Your task to perform on an android device: Clear the shopping cart on walmart.com. Search for razer blackwidow on walmart.com, select the first entry, add it to the cart, then select checkout. Image 0: 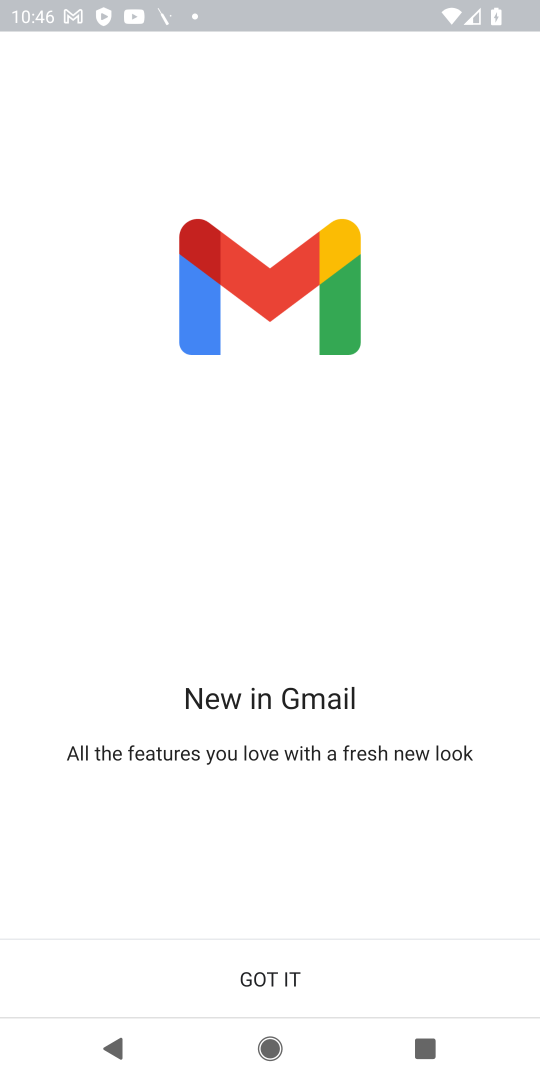
Step 0: press home button
Your task to perform on an android device: Clear the shopping cart on walmart.com. Search for razer blackwidow on walmart.com, select the first entry, add it to the cart, then select checkout. Image 1: 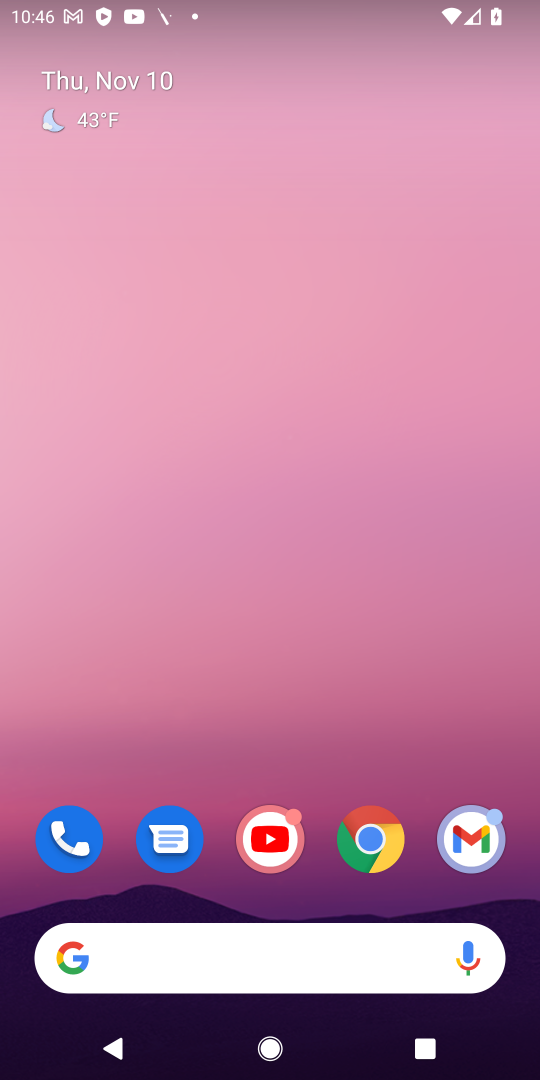
Step 1: click (369, 841)
Your task to perform on an android device: Clear the shopping cart on walmart.com. Search for razer blackwidow on walmart.com, select the first entry, add it to the cart, then select checkout. Image 2: 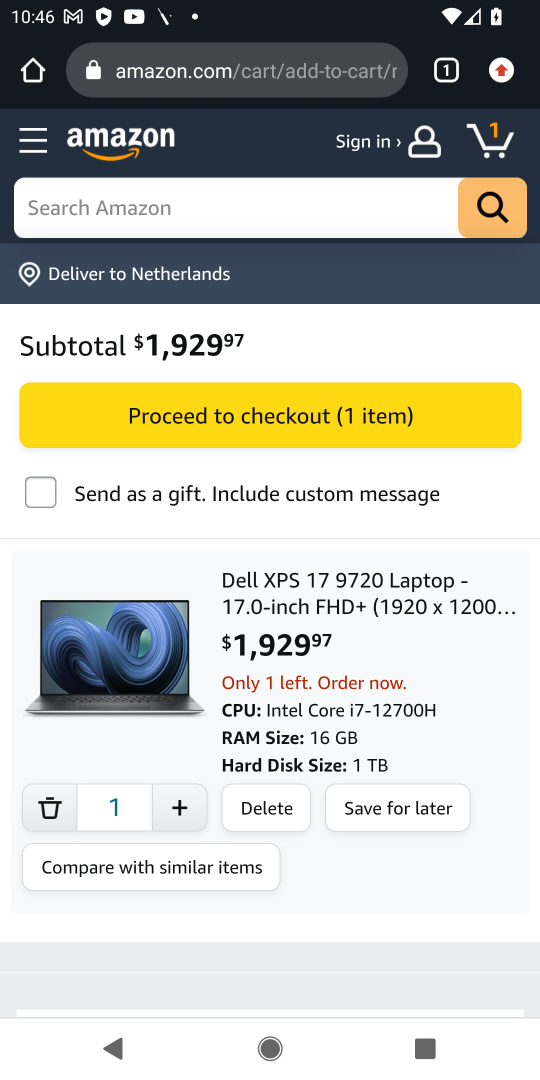
Step 2: click (283, 67)
Your task to perform on an android device: Clear the shopping cart on walmart.com. Search for razer blackwidow on walmart.com, select the first entry, add it to the cart, then select checkout. Image 3: 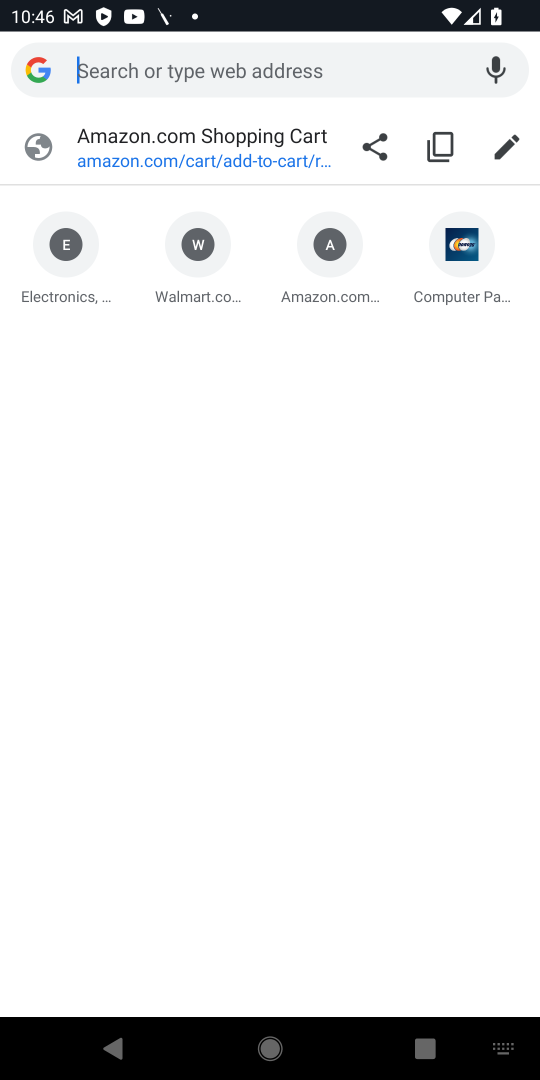
Step 3: click (198, 246)
Your task to perform on an android device: Clear the shopping cart on walmart.com. Search for razer blackwidow on walmart.com, select the first entry, add it to the cart, then select checkout. Image 4: 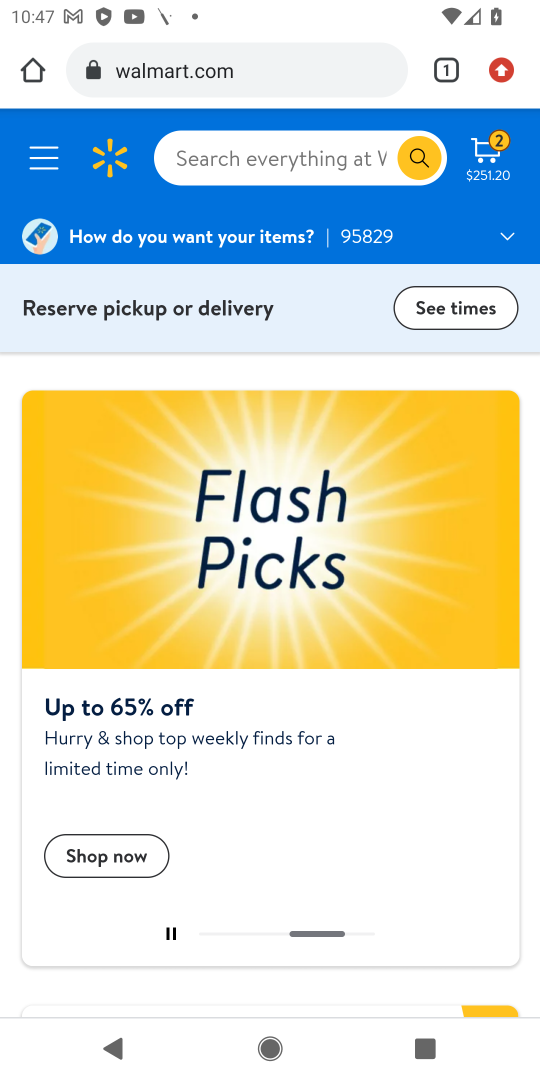
Step 4: click (491, 146)
Your task to perform on an android device: Clear the shopping cart on walmart.com. Search for razer blackwidow on walmart.com, select the first entry, add it to the cart, then select checkout. Image 5: 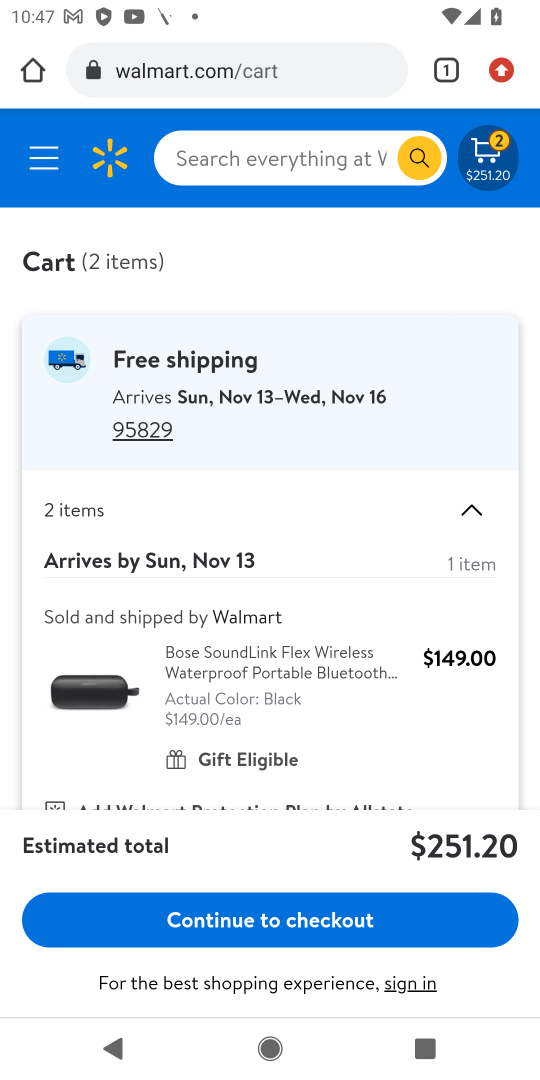
Step 5: drag from (345, 744) to (337, 371)
Your task to perform on an android device: Clear the shopping cart on walmart.com. Search for razer blackwidow on walmart.com, select the first entry, add it to the cart, then select checkout. Image 6: 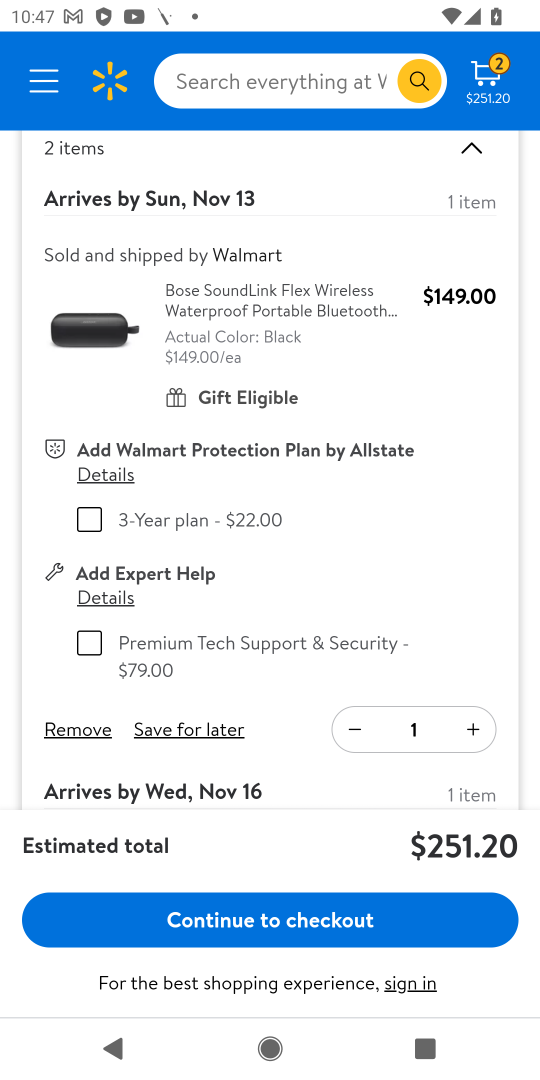
Step 6: click (75, 728)
Your task to perform on an android device: Clear the shopping cart on walmart.com. Search for razer blackwidow on walmart.com, select the first entry, add it to the cart, then select checkout. Image 7: 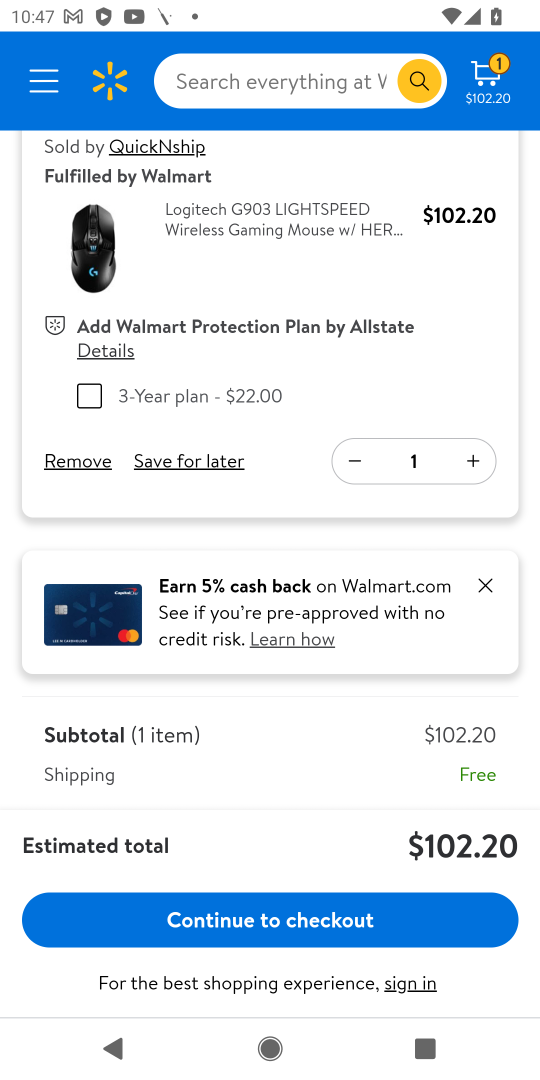
Step 7: click (76, 460)
Your task to perform on an android device: Clear the shopping cart on walmart.com. Search for razer blackwidow on walmart.com, select the first entry, add it to the cart, then select checkout. Image 8: 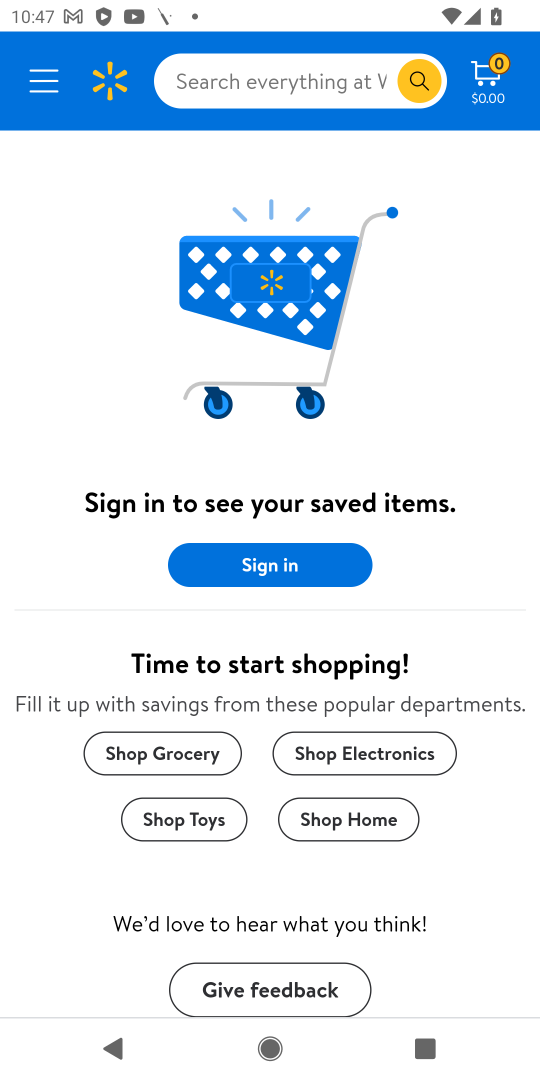
Step 8: click (315, 69)
Your task to perform on an android device: Clear the shopping cart on walmart.com. Search for razer blackwidow on walmart.com, select the first entry, add it to the cart, then select checkout. Image 9: 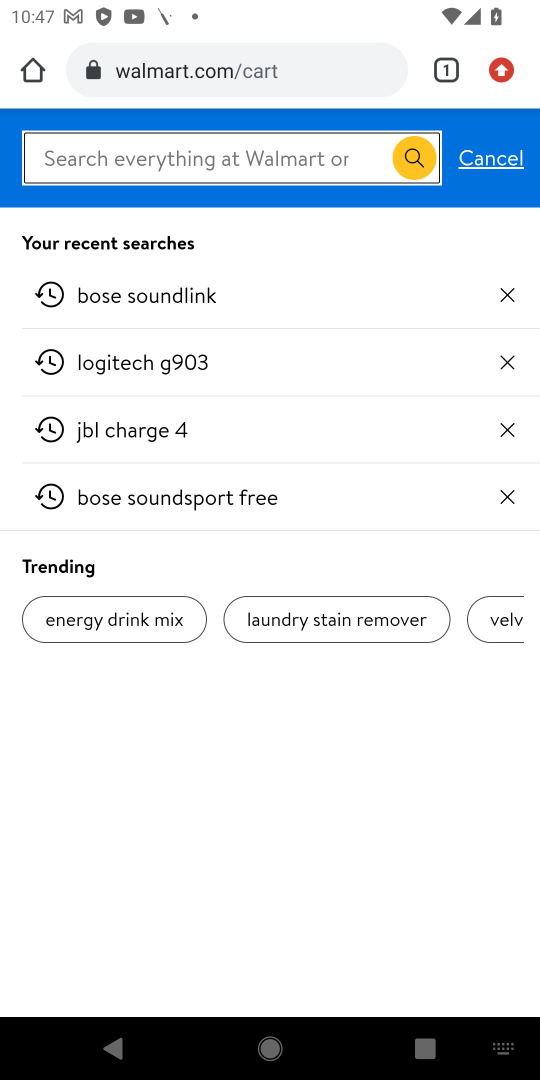
Step 9: type " razer blackwidow "
Your task to perform on an android device: Clear the shopping cart on walmart.com. Search for razer blackwidow on walmart.com, select the first entry, add it to the cart, then select checkout. Image 10: 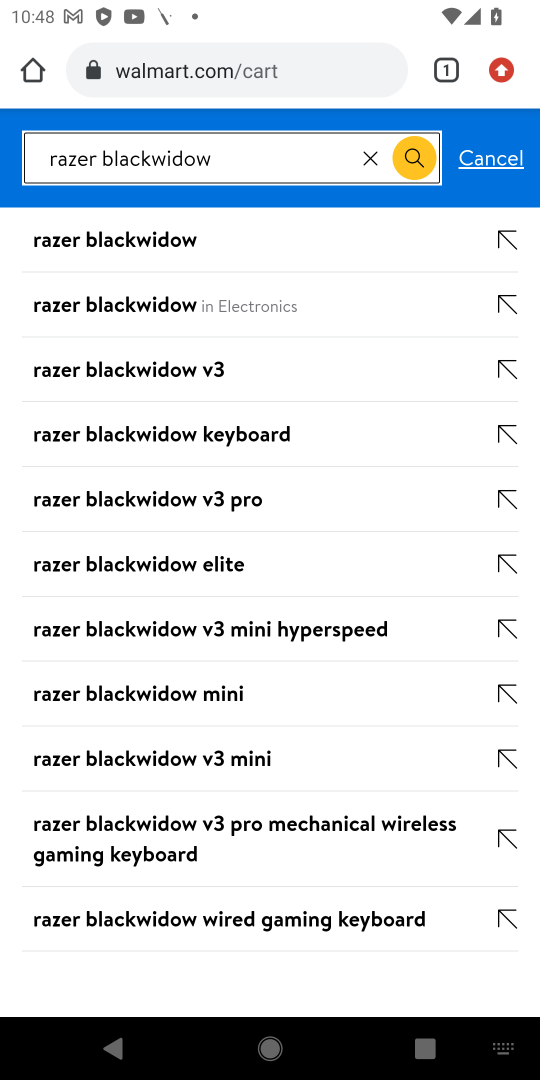
Step 10: click (151, 236)
Your task to perform on an android device: Clear the shopping cart on walmart.com. Search for razer blackwidow on walmart.com, select the first entry, add it to the cart, then select checkout. Image 11: 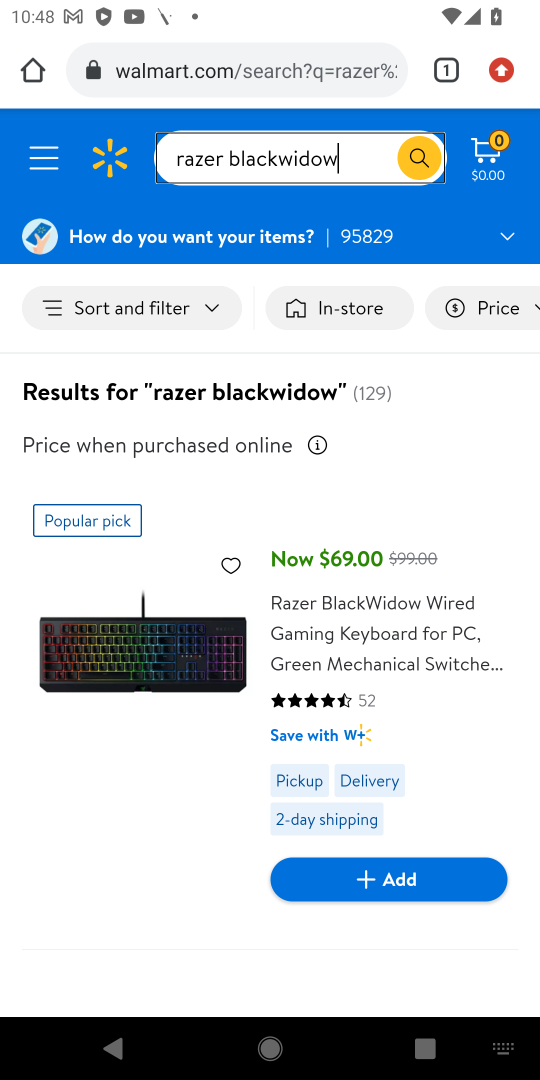
Step 11: click (174, 666)
Your task to perform on an android device: Clear the shopping cart on walmart.com. Search for razer blackwidow on walmart.com, select the first entry, add it to the cart, then select checkout. Image 12: 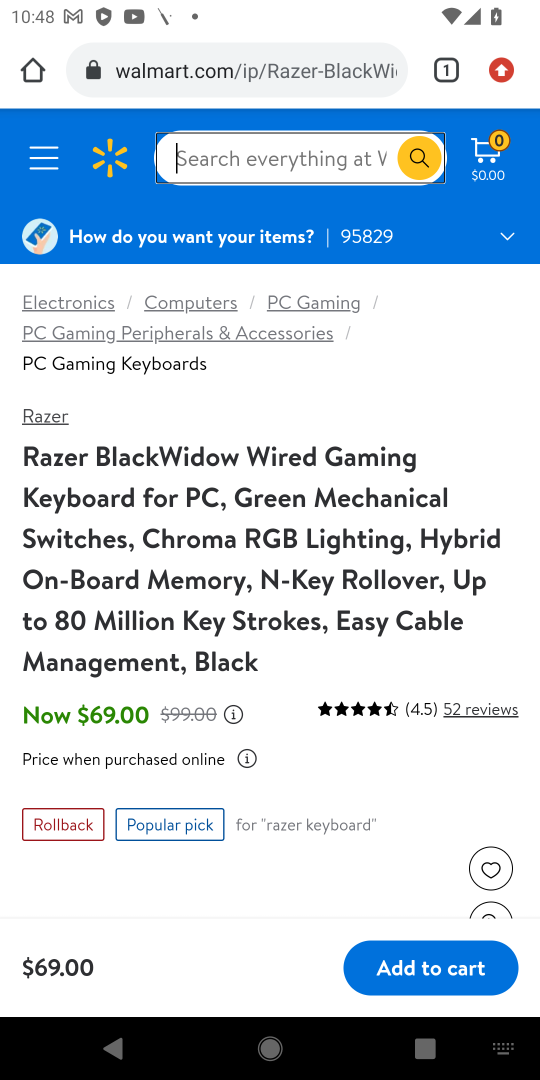
Step 12: click (477, 969)
Your task to perform on an android device: Clear the shopping cart on walmart.com. Search for razer blackwidow on walmart.com, select the first entry, add it to the cart, then select checkout. Image 13: 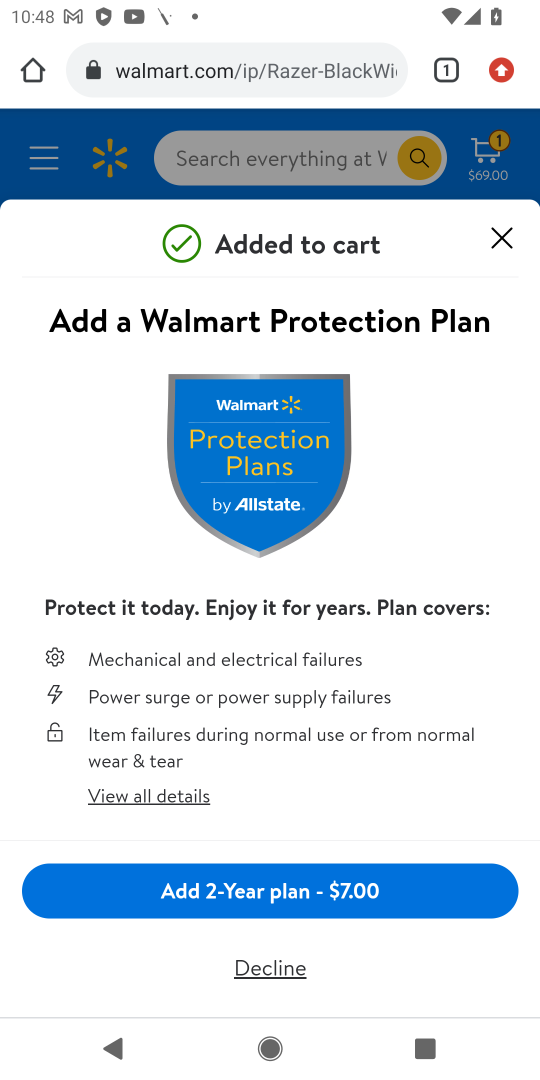
Step 13: click (500, 234)
Your task to perform on an android device: Clear the shopping cart on walmart.com. Search for razer blackwidow on walmart.com, select the first entry, add it to the cart, then select checkout. Image 14: 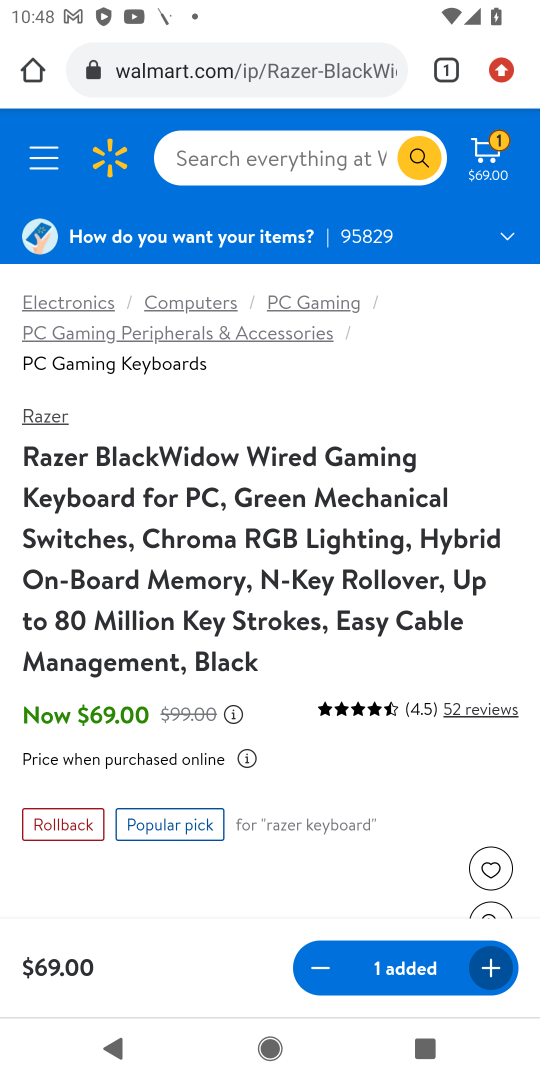
Step 14: click (494, 161)
Your task to perform on an android device: Clear the shopping cart on walmart.com. Search for razer blackwidow on walmart.com, select the first entry, add it to the cart, then select checkout. Image 15: 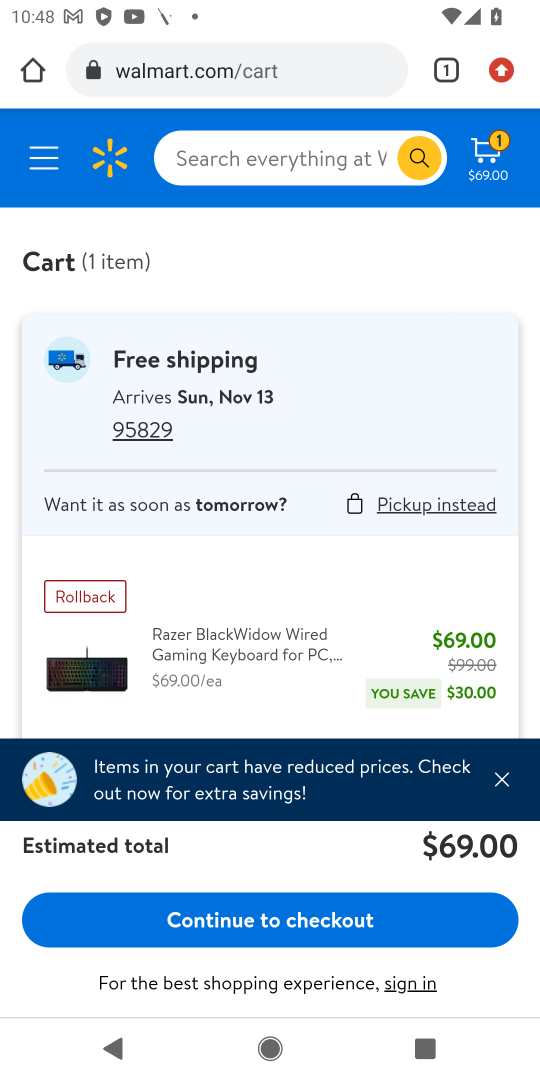
Step 15: click (302, 915)
Your task to perform on an android device: Clear the shopping cart on walmart.com. Search for razer blackwidow on walmart.com, select the first entry, add it to the cart, then select checkout. Image 16: 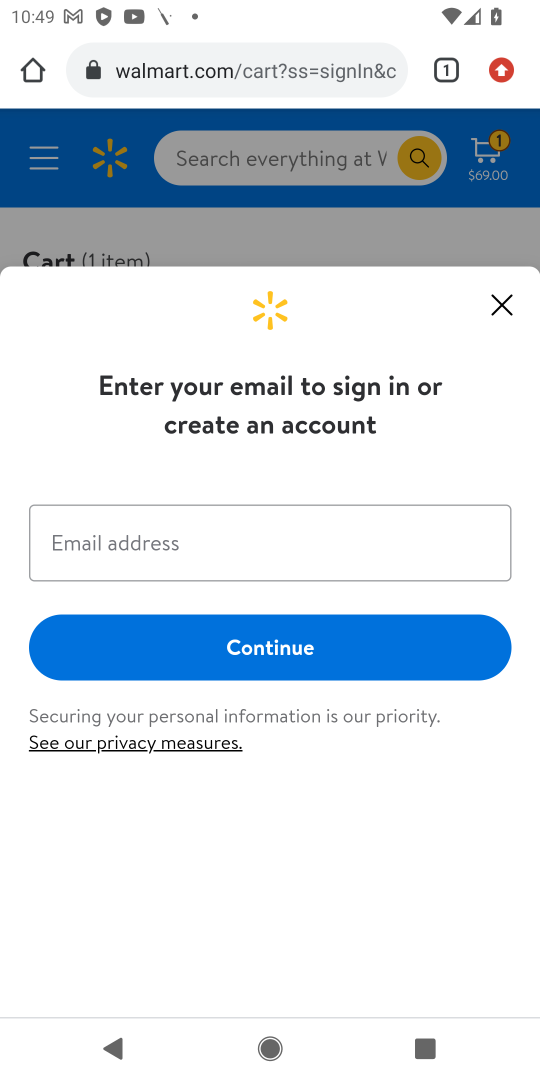
Step 16: task complete